Your task to perform on an android device: open chrome privacy settings Image 0: 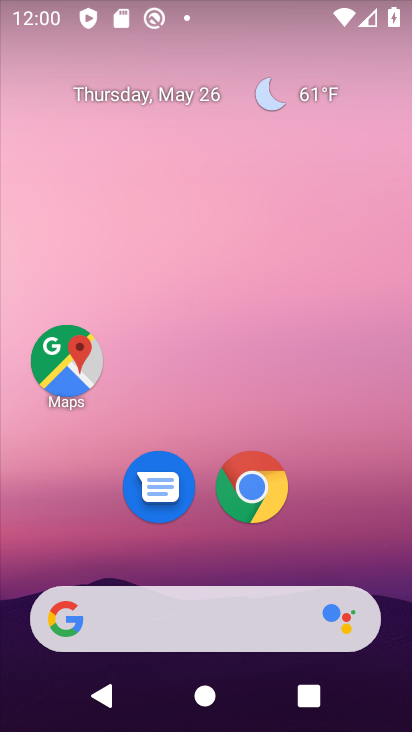
Step 0: drag from (238, 646) to (228, 282)
Your task to perform on an android device: open chrome privacy settings Image 1: 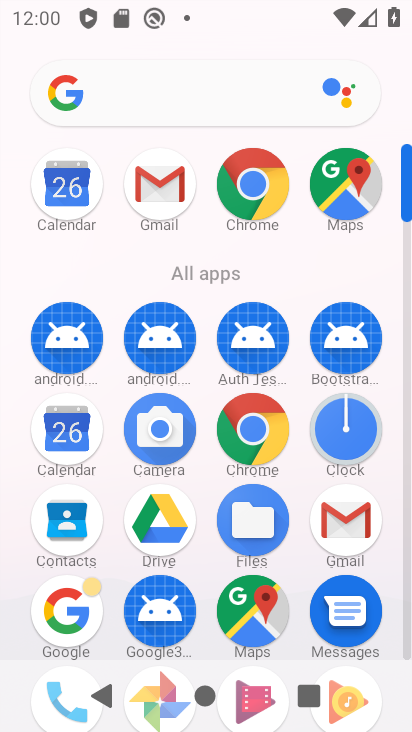
Step 1: drag from (210, 556) to (234, 217)
Your task to perform on an android device: open chrome privacy settings Image 2: 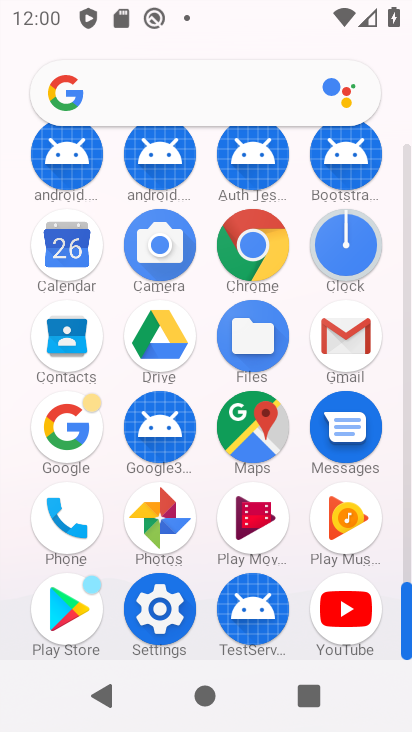
Step 2: click (178, 584)
Your task to perform on an android device: open chrome privacy settings Image 3: 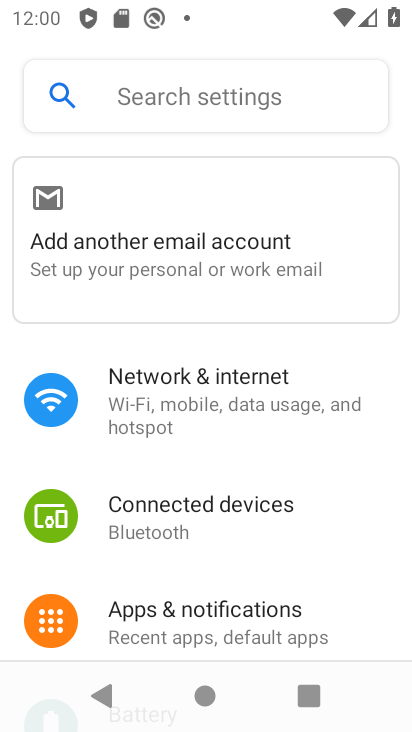
Step 3: drag from (232, 539) to (231, 238)
Your task to perform on an android device: open chrome privacy settings Image 4: 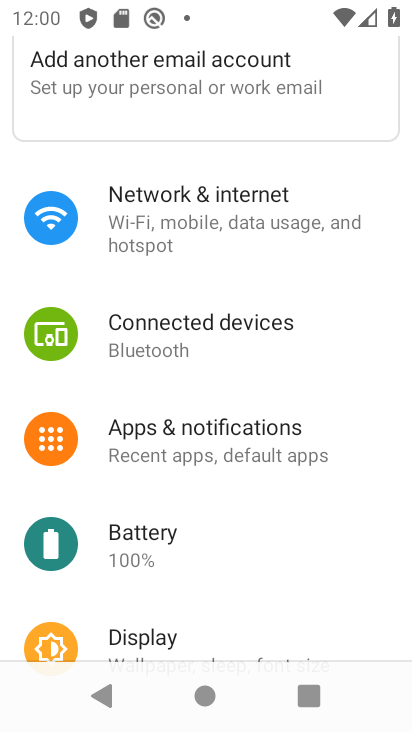
Step 4: drag from (270, 581) to (274, 242)
Your task to perform on an android device: open chrome privacy settings Image 5: 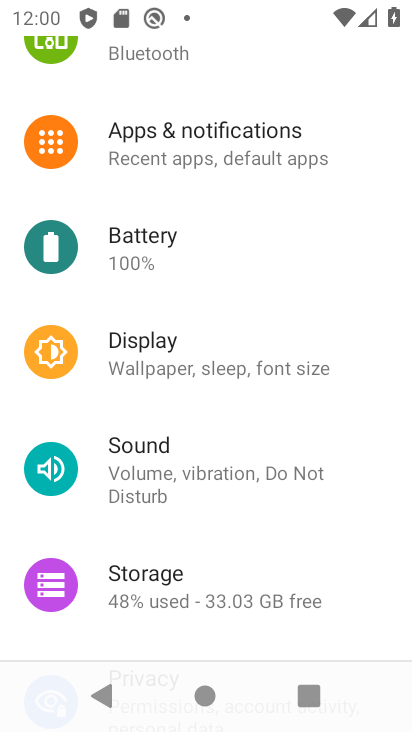
Step 5: drag from (239, 482) to (200, 188)
Your task to perform on an android device: open chrome privacy settings Image 6: 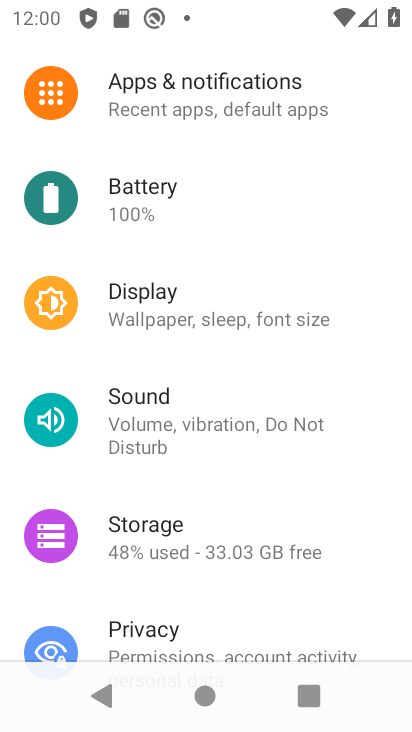
Step 6: click (146, 630)
Your task to perform on an android device: open chrome privacy settings Image 7: 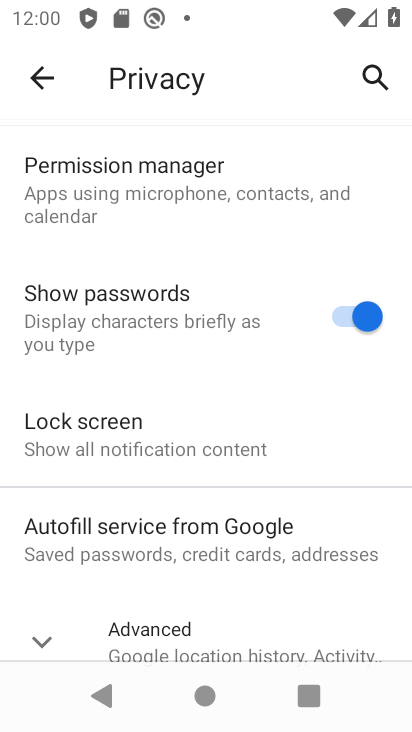
Step 7: task complete